Your task to perform on an android device: open app "Paramount+ | Peak Streaming" (install if not already installed) Image 0: 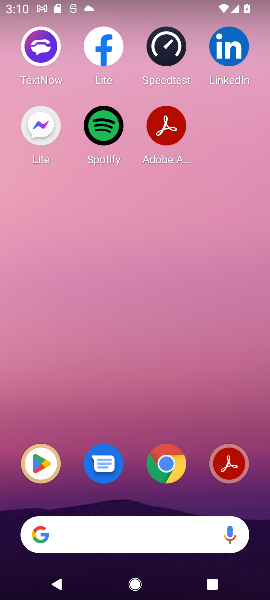
Step 0: drag from (73, 536) to (140, 204)
Your task to perform on an android device: open app "Paramount+ | Peak Streaming" (install if not already installed) Image 1: 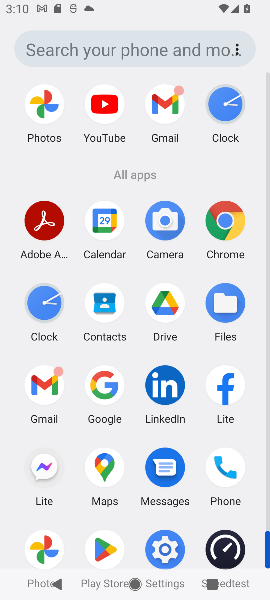
Step 1: click (105, 547)
Your task to perform on an android device: open app "Paramount+ | Peak Streaming" (install if not already installed) Image 2: 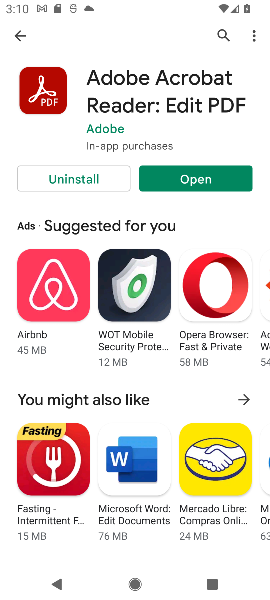
Step 2: click (220, 34)
Your task to perform on an android device: open app "Paramount+ | Peak Streaming" (install if not already installed) Image 3: 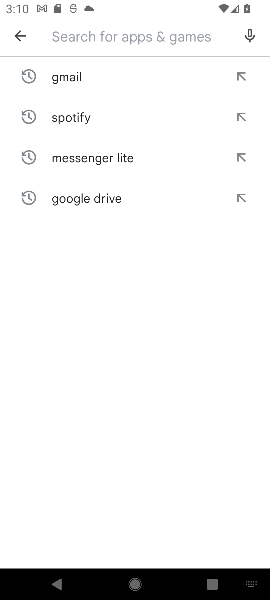
Step 3: click (152, 28)
Your task to perform on an android device: open app "Paramount+ | Peak Streaming" (install if not already installed) Image 4: 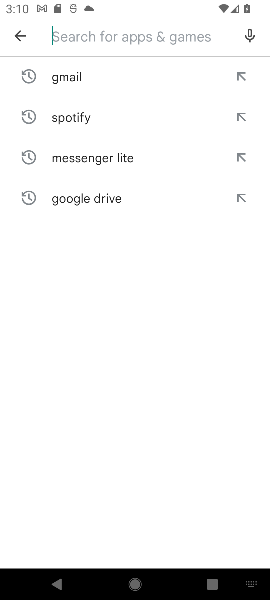
Step 4: type "Paramount+ | Peak Streaming"
Your task to perform on an android device: open app "Paramount+ | Peak Streaming" (install if not already installed) Image 5: 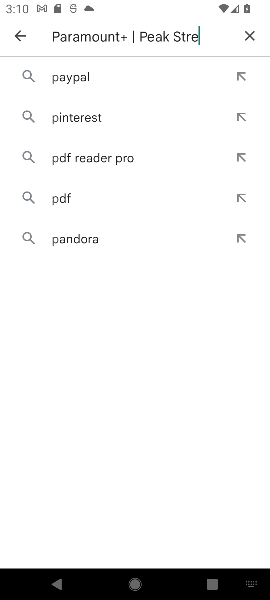
Step 5: type ""
Your task to perform on an android device: open app "Paramount+ | Peak Streaming" (install if not already installed) Image 6: 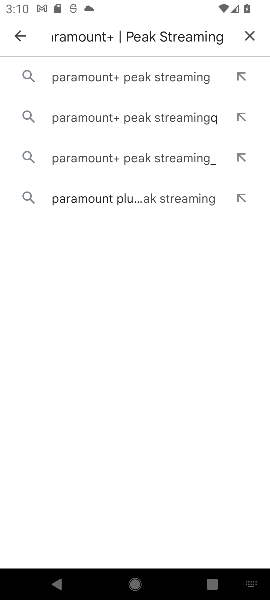
Step 6: click (163, 73)
Your task to perform on an android device: open app "Paramount+ | Peak Streaming" (install if not already installed) Image 7: 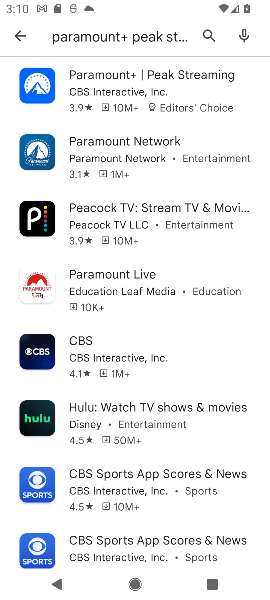
Step 7: click (127, 78)
Your task to perform on an android device: open app "Paramount+ | Peak Streaming" (install if not already installed) Image 8: 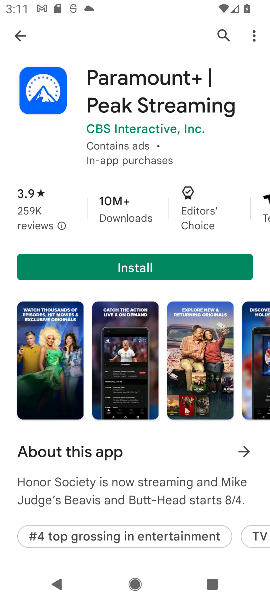
Step 8: click (132, 271)
Your task to perform on an android device: open app "Paramount+ | Peak Streaming" (install if not already installed) Image 9: 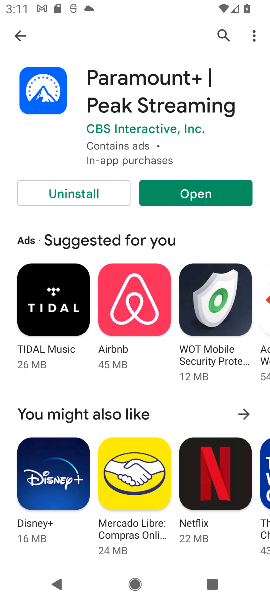
Step 9: click (206, 194)
Your task to perform on an android device: open app "Paramount+ | Peak Streaming" (install if not already installed) Image 10: 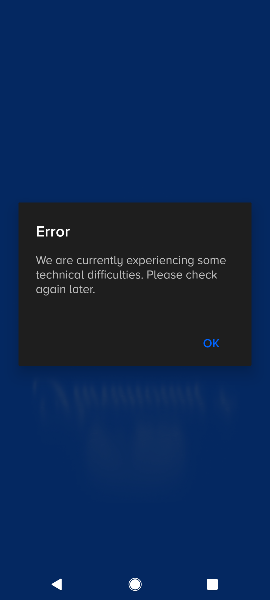
Step 10: click (215, 343)
Your task to perform on an android device: open app "Paramount+ | Peak Streaming" (install if not already installed) Image 11: 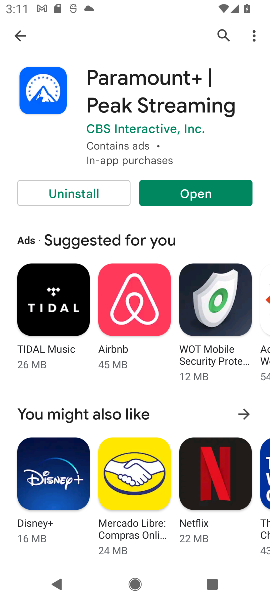
Step 11: task complete